Your task to perform on an android device: open app "Firefox Browser" (install if not already installed) and go to login screen Image 0: 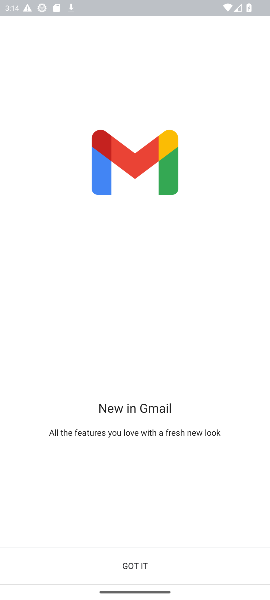
Step 0: press home button
Your task to perform on an android device: open app "Firefox Browser" (install if not already installed) and go to login screen Image 1: 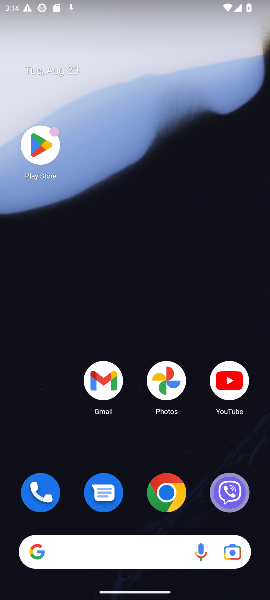
Step 1: click (44, 169)
Your task to perform on an android device: open app "Firefox Browser" (install if not already installed) and go to login screen Image 2: 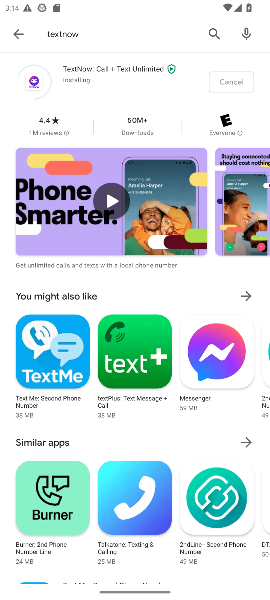
Step 2: click (221, 27)
Your task to perform on an android device: open app "Firefox Browser" (install if not already installed) and go to login screen Image 3: 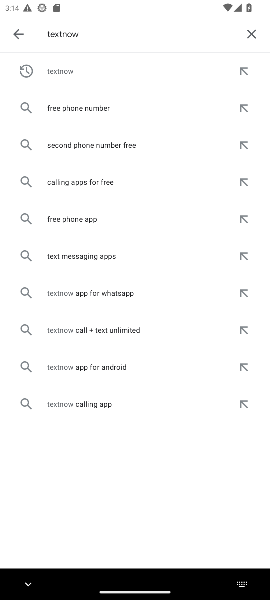
Step 3: click (128, 85)
Your task to perform on an android device: open app "Firefox Browser" (install if not already installed) and go to login screen Image 4: 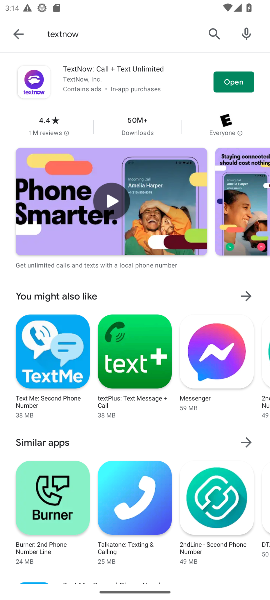
Step 4: click (199, 29)
Your task to perform on an android device: open app "Firefox Browser" (install if not already installed) and go to login screen Image 5: 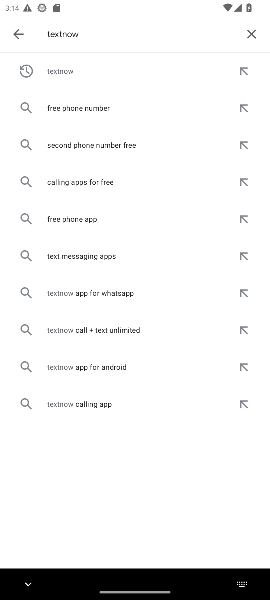
Step 5: click (245, 36)
Your task to perform on an android device: open app "Firefox Browser" (install if not already installed) and go to login screen Image 6: 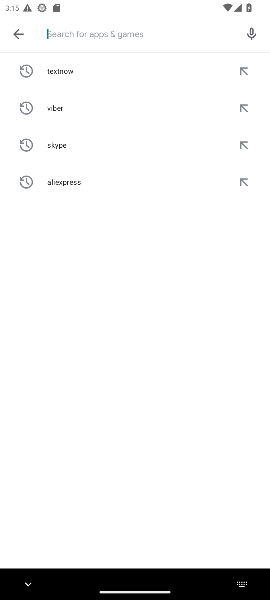
Step 6: type "fiirefox"
Your task to perform on an android device: open app "Firefox Browser" (install if not already installed) and go to login screen Image 7: 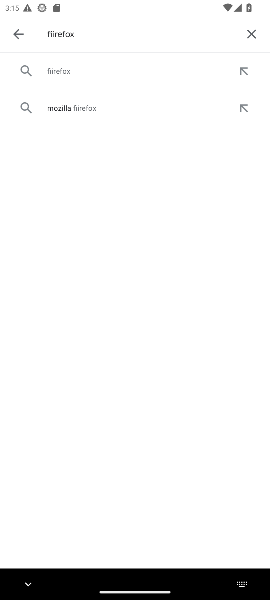
Step 7: click (58, 83)
Your task to perform on an android device: open app "Firefox Browser" (install if not already installed) and go to login screen Image 8: 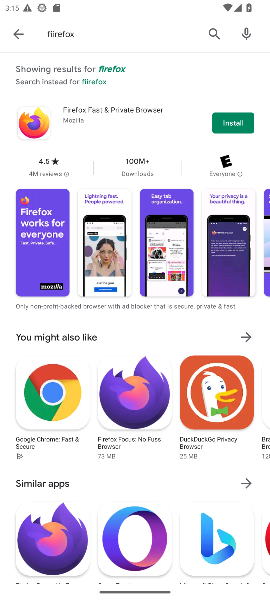
Step 8: click (225, 130)
Your task to perform on an android device: open app "Firefox Browser" (install if not already installed) and go to login screen Image 9: 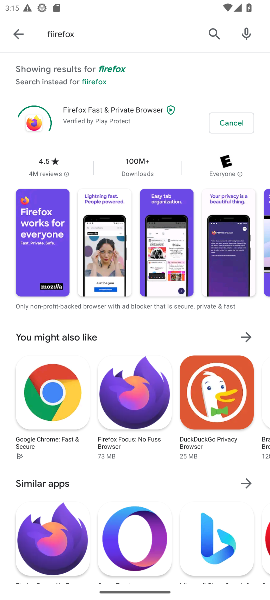
Step 9: task complete